Your task to perform on an android device: Search for vegetarian restaurants on Maps Image 0: 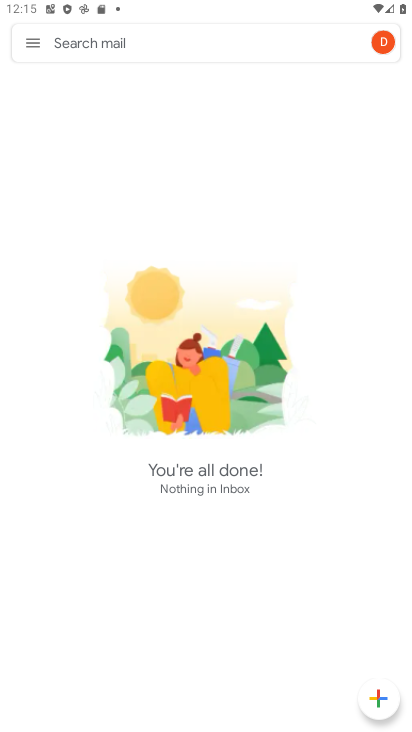
Step 0: press home button
Your task to perform on an android device: Search for vegetarian restaurants on Maps Image 1: 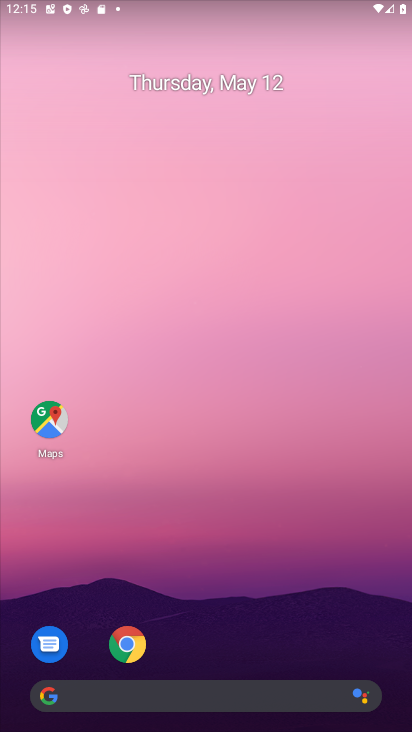
Step 1: click (41, 423)
Your task to perform on an android device: Search for vegetarian restaurants on Maps Image 2: 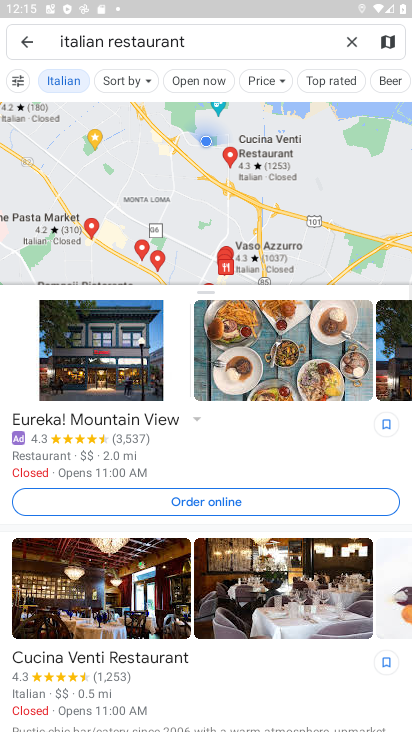
Step 2: click (357, 51)
Your task to perform on an android device: Search for vegetarian restaurants on Maps Image 3: 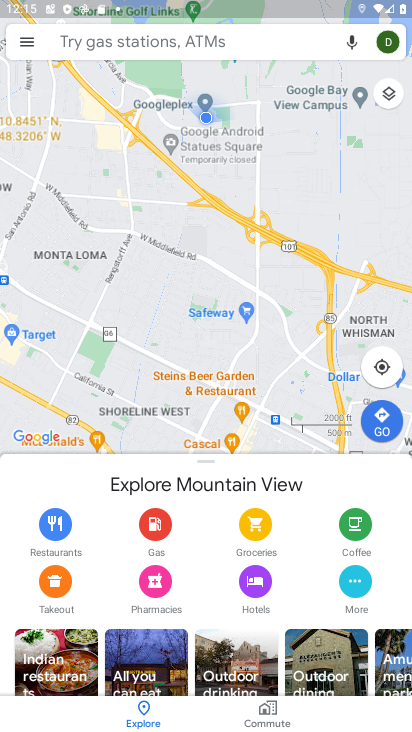
Step 3: click (302, 36)
Your task to perform on an android device: Search for vegetarian restaurants on Maps Image 4: 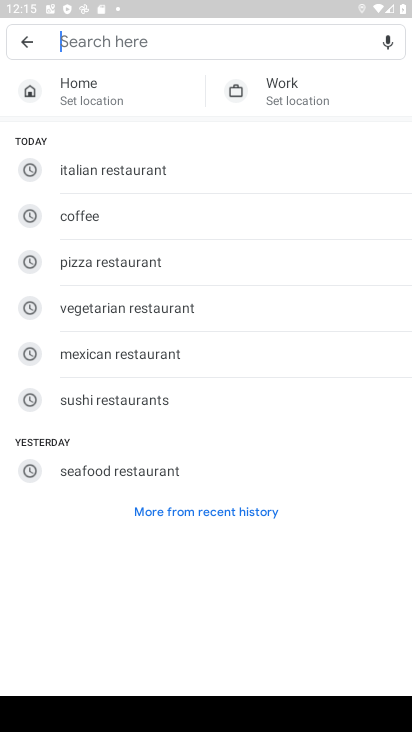
Step 4: click (182, 314)
Your task to perform on an android device: Search for vegetarian restaurants on Maps Image 5: 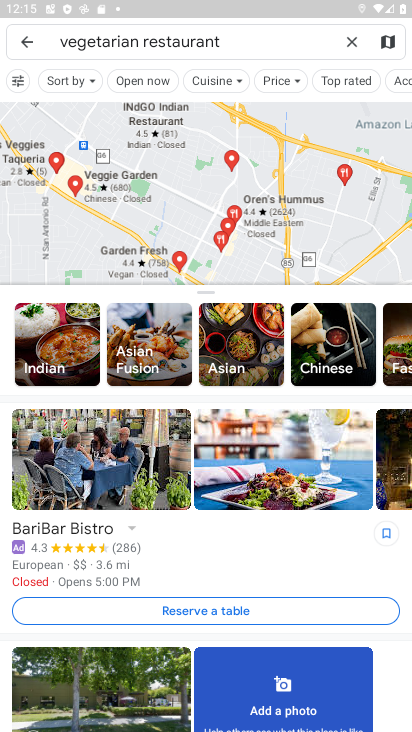
Step 5: task complete